Your task to perform on an android device: Go to battery settings Image 0: 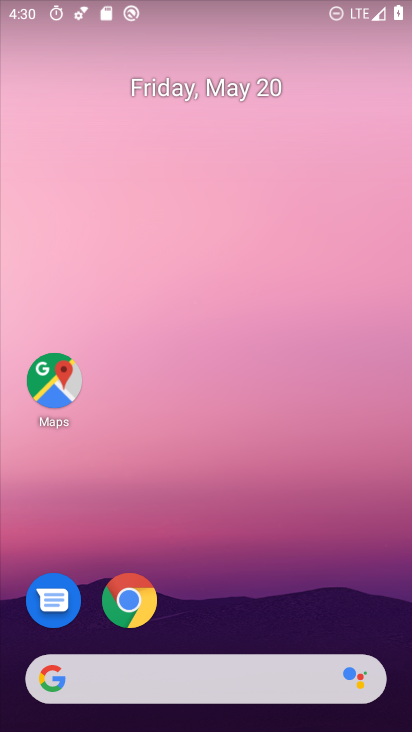
Step 0: drag from (210, 596) to (284, 123)
Your task to perform on an android device: Go to battery settings Image 1: 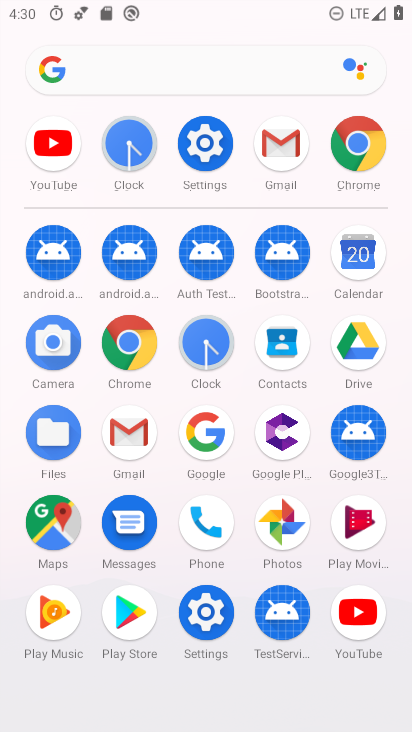
Step 1: click (212, 147)
Your task to perform on an android device: Go to battery settings Image 2: 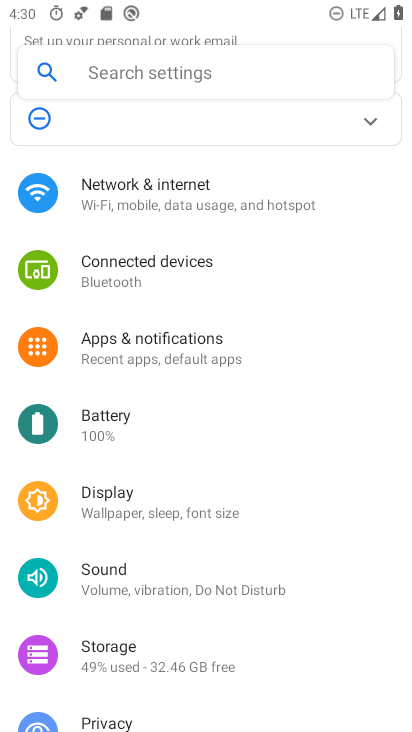
Step 2: click (93, 422)
Your task to perform on an android device: Go to battery settings Image 3: 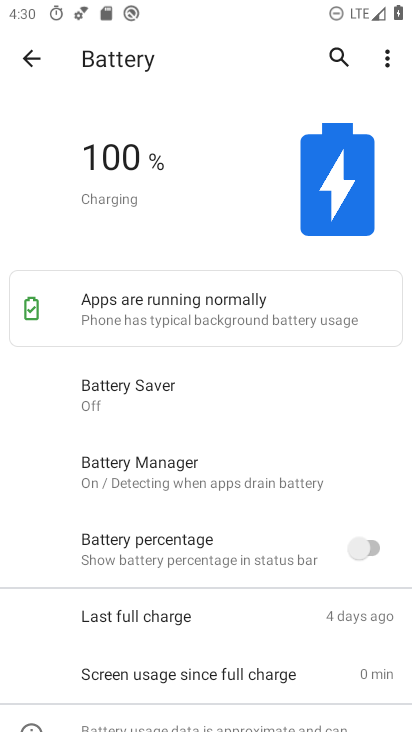
Step 3: task complete